Your task to perform on an android device: turn off notifications in google photos Image 0: 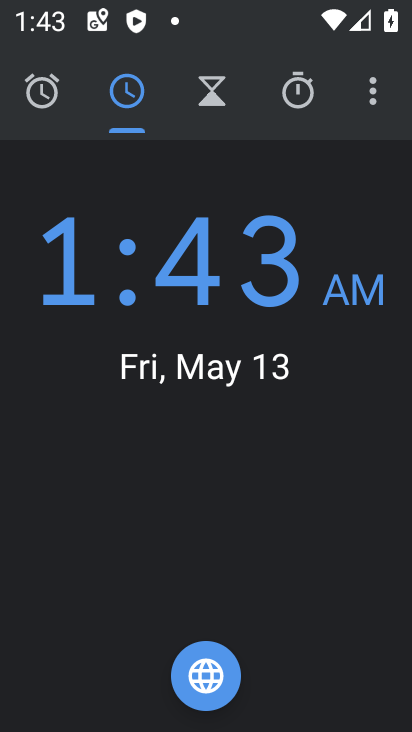
Step 0: press home button
Your task to perform on an android device: turn off notifications in google photos Image 1: 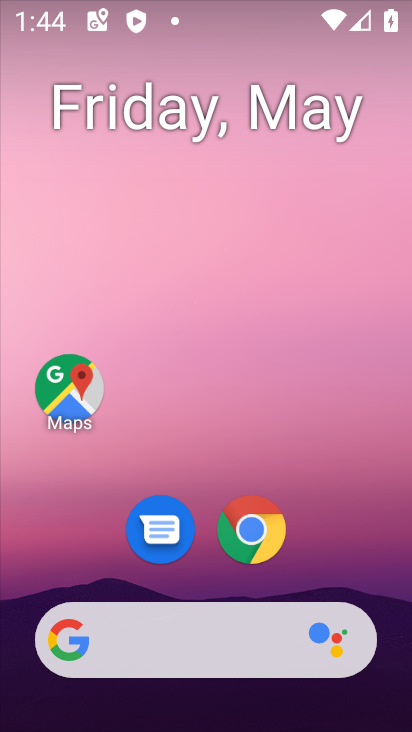
Step 1: drag from (286, 460) to (260, 117)
Your task to perform on an android device: turn off notifications in google photos Image 2: 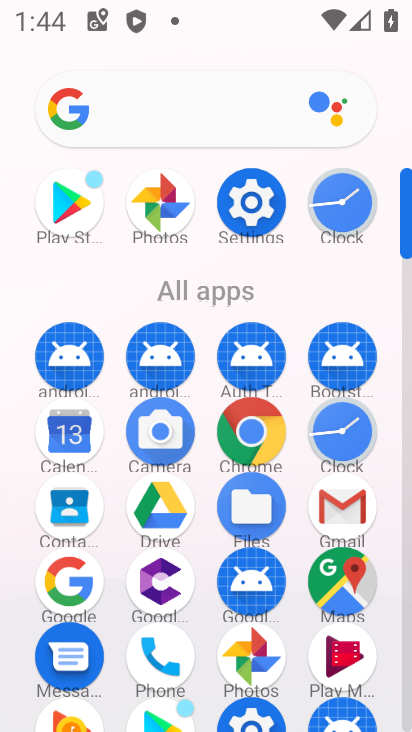
Step 2: click (233, 656)
Your task to perform on an android device: turn off notifications in google photos Image 3: 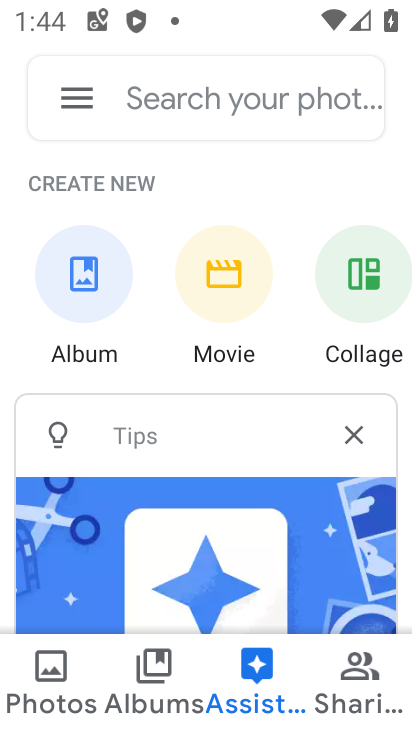
Step 3: click (91, 105)
Your task to perform on an android device: turn off notifications in google photos Image 4: 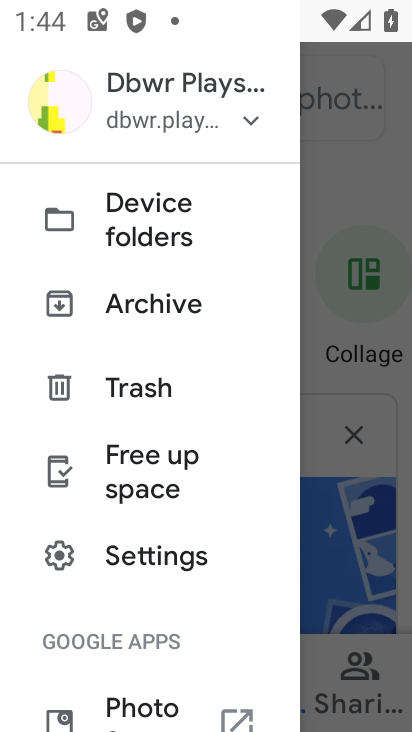
Step 4: click (165, 553)
Your task to perform on an android device: turn off notifications in google photos Image 5: 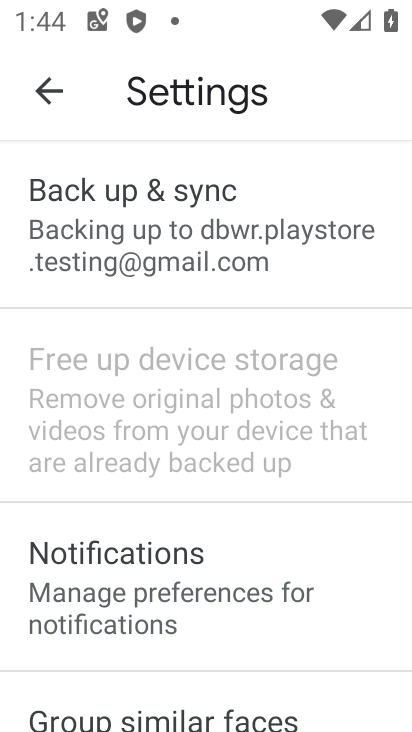
Step 5: click (130, 608)
Your task to perform on an android device: turn off notifications in google photos Image 6: 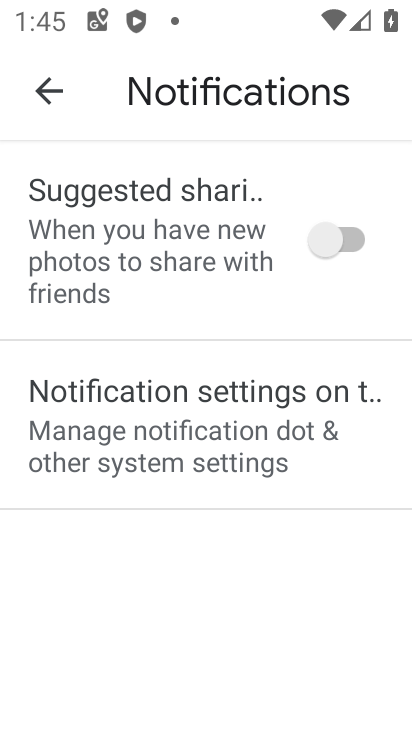
Step 6: click (126, 688)
Your task to perform on an android device: turn off notifications in google photos Image 7: 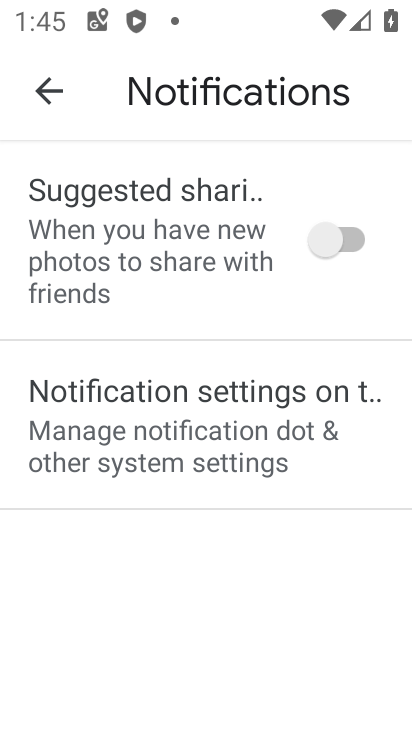
Step 7: click (241, 436)
Your task to perform on an android device: turn off notifications in google photos Image 8: 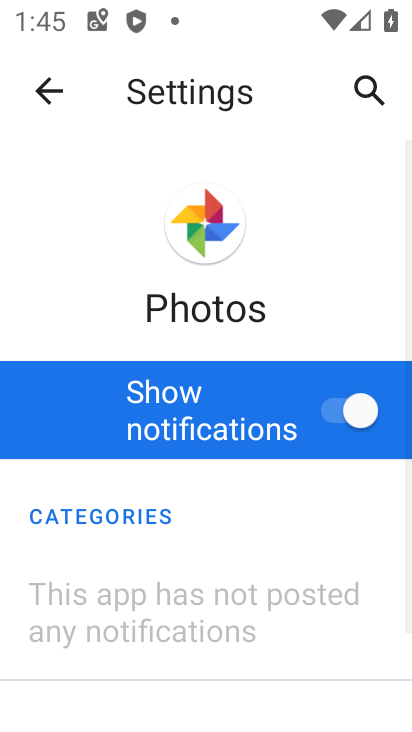
Step 8: click (335, 408)
Your task to perform on an android device: turn off notifications in google photos Image 9: 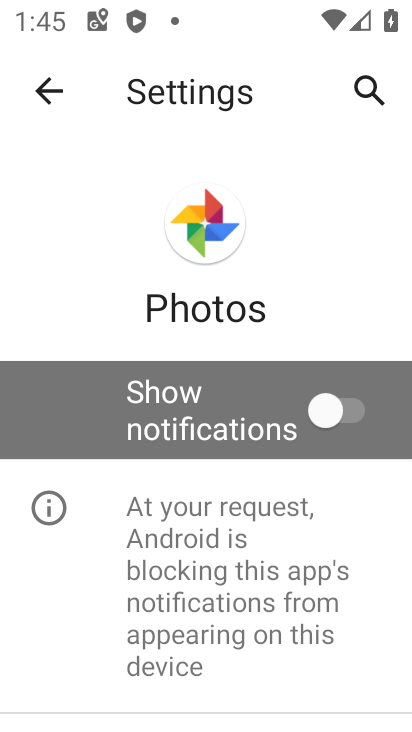
Step 9: task complete